Your task to perform on an android device: turn off notifications settings in the gmail app Image 0: 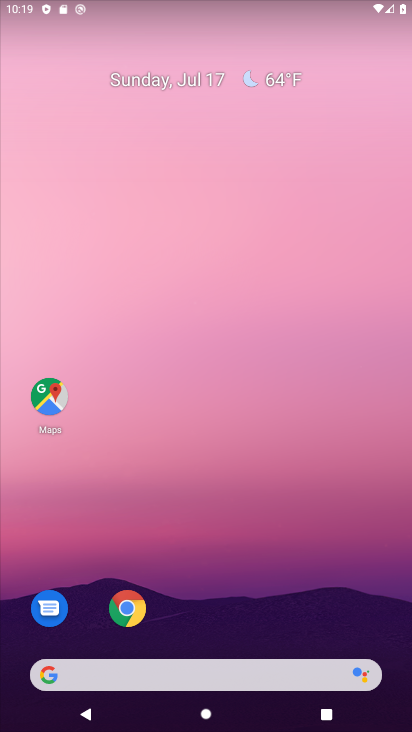
Step 0: drag from (354, 611) to (241, 24)
Your task to perform on an android device: turn off notifications settings in the gmail app Image 1: 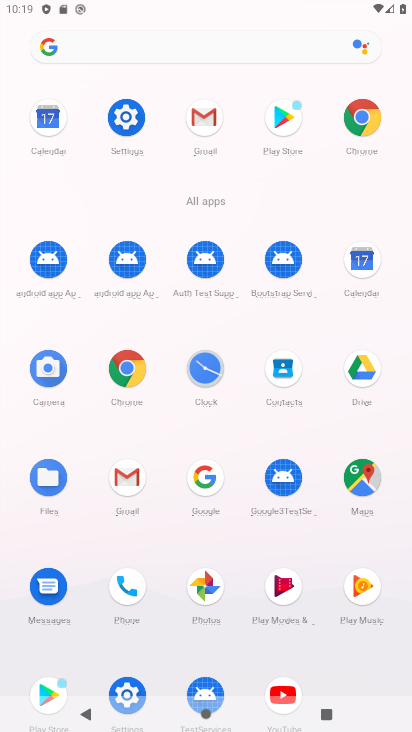
Step 1: click (119, 474)
Your task to perform on an android device: turn off notifications settings in the gmail app Image 2: 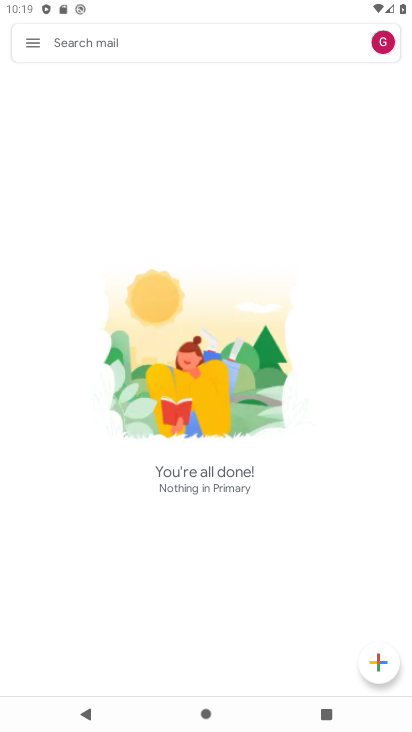
Step 2: click (21, 46)
Your task to perform on an android device: turn off notifications settings in the gmail app Image 3: 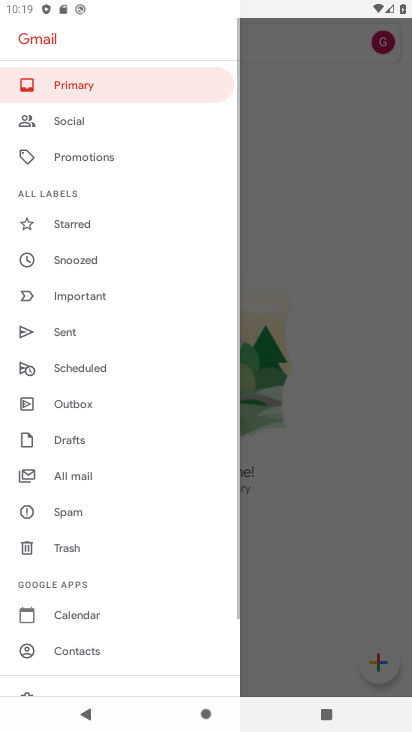
Step 3: drag from (94, 632) to (139, 0)
Your task to perform on an android device: turn off notifications settings in the gmail app Image 4: 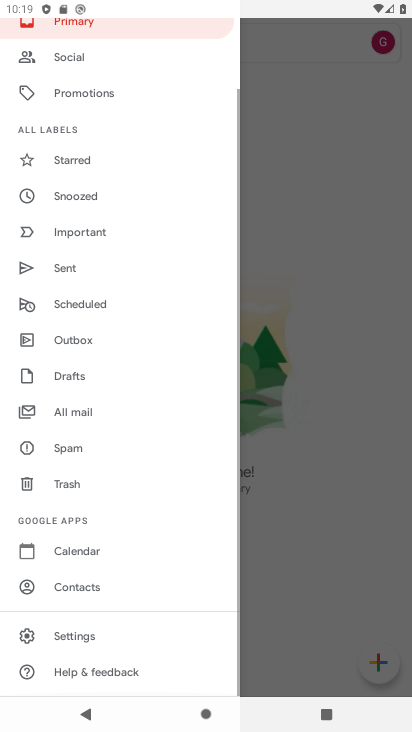
Step 4: click (80, 629)
Your task to perform on an android device: turn off notifications settings in the gmail app Image 5: 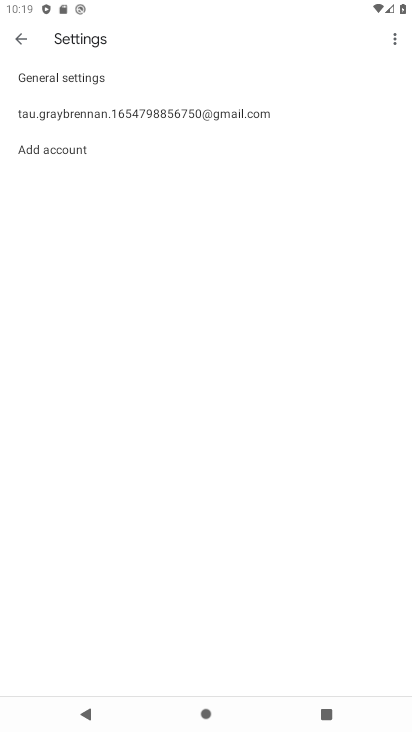
Step 5: click (122, 100)
Your task to perform on an android device: turn off notifications settings in the gmail app Image 6: 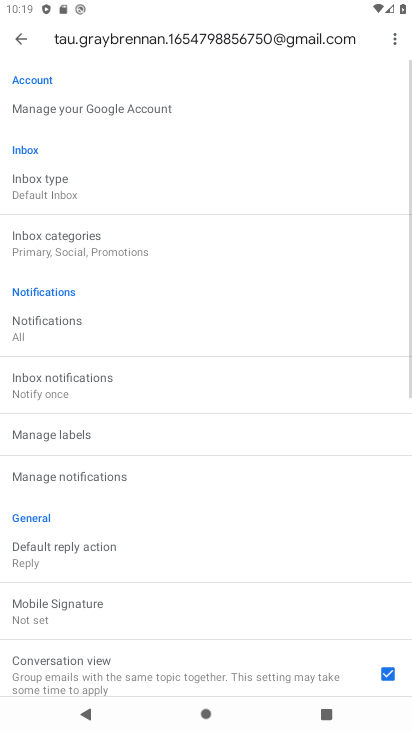
Step 6: click (56, 338)
Your task to perform on an android device: turn off notifications settings in the gmail app Image 7: 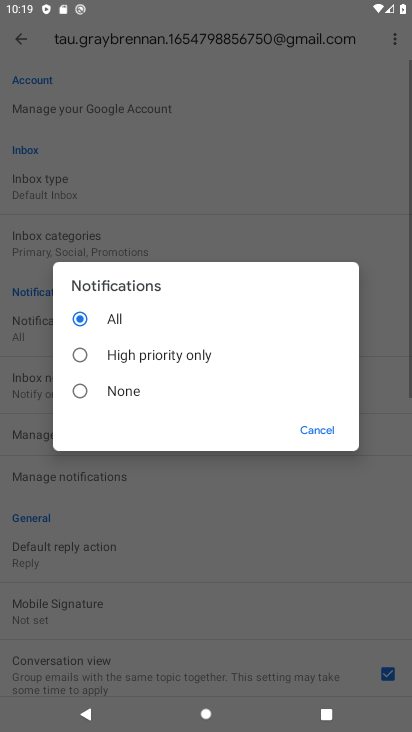
Step 7: click (95, 387)
Your task to perform on an android device: turn off notifications settings in the gmail app Image 8: 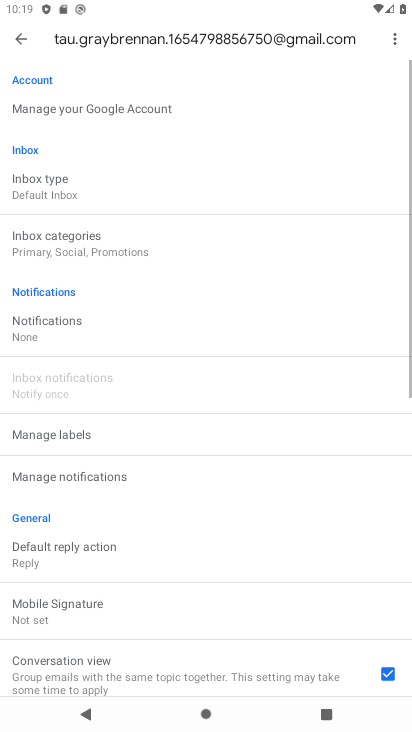
Step 8: task complete